Your task to perform on an android device: Go to Maps Image 0: 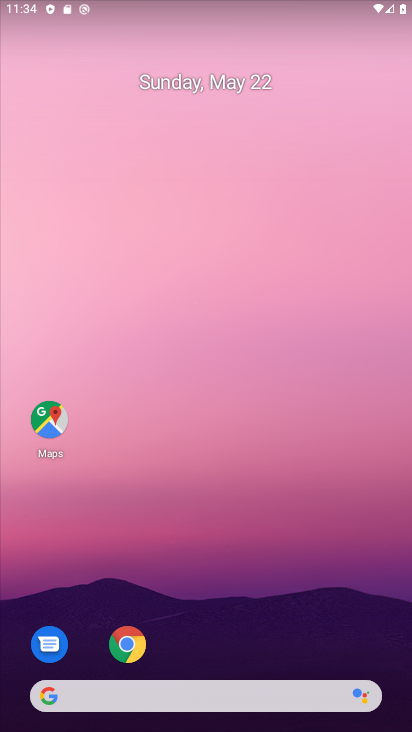
Step 0: drag from (359, 623) to (257, 33)
Your task to perform on an android device: Go to Maps Image 1: 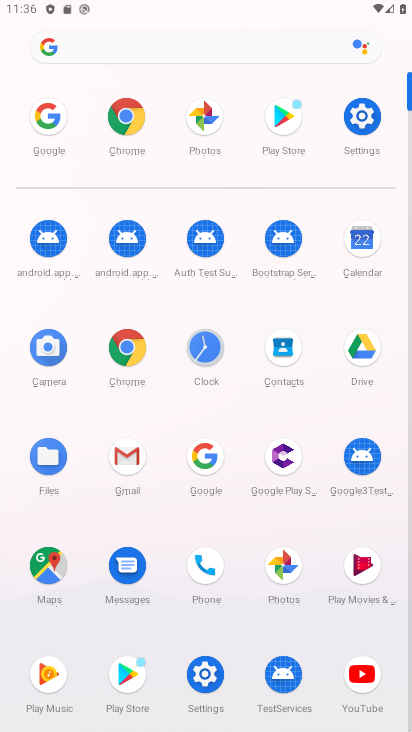
Step 1: click (58, 588)
Your task to perform on an android device: Go to Maps Image 2: 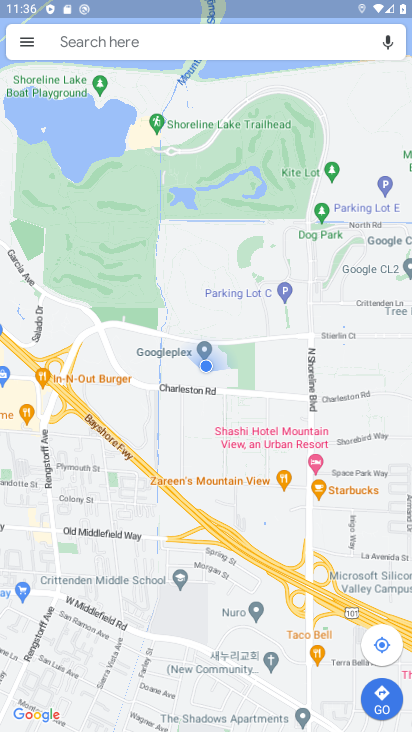
Step 2: task complete